Your task to perform on an android device: Do I have any events tomorrow? Image 0: 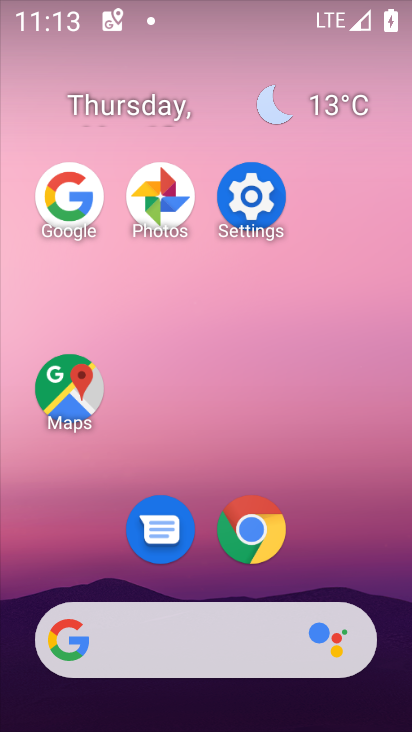
Step 0: drag from (305, 456) to (315, 132)
Your task to perform on an android device: Do I have any events tomorrow? Image 1: 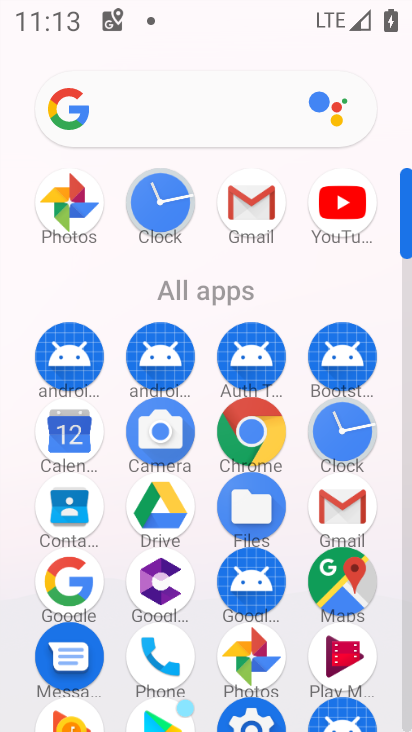
Step 1: drag from (73, 437) to (94, 277)
Your task to perform on an android device: Do I have any events tomorrow? Image 2: 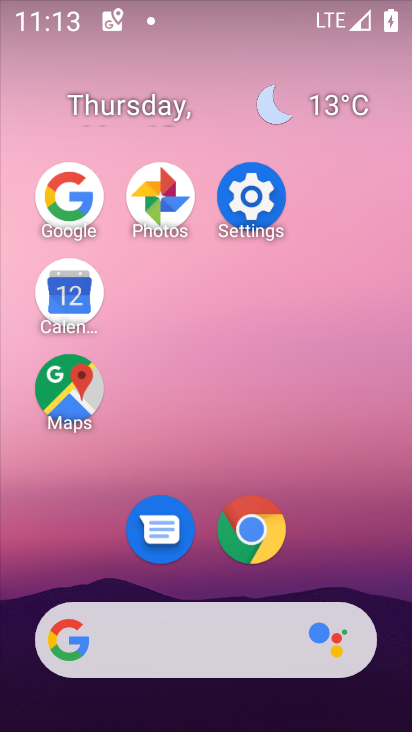
Step 2: click (83, 286)
Your task to perform on an android device: Do I have any events tomorrow? Image 3: 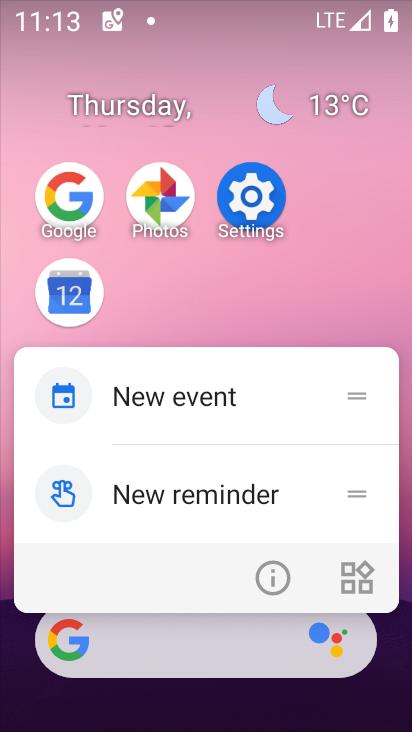
Step 3: click (74, 276)
Your task to perform on an android device: Do I have any events tomorrow? Image 4: 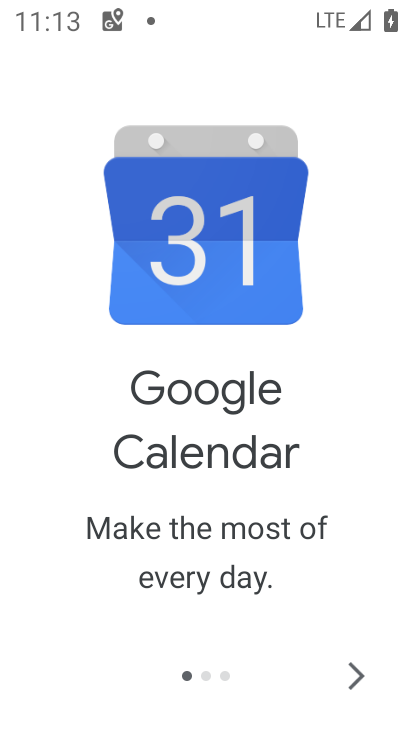
Step 4: click (365, 675)
Your task to perform on an android device: Do I have any events tomorrow? Image 5: 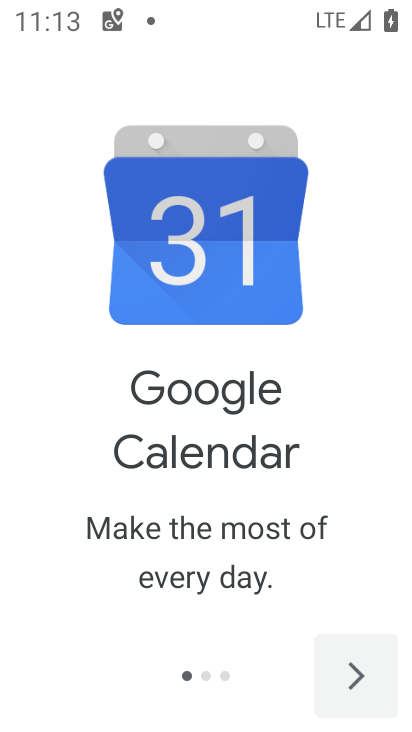
Step 5: click (365, 675)
Your task to perform on an android device: Do I have any events tomorrow? Image 6: 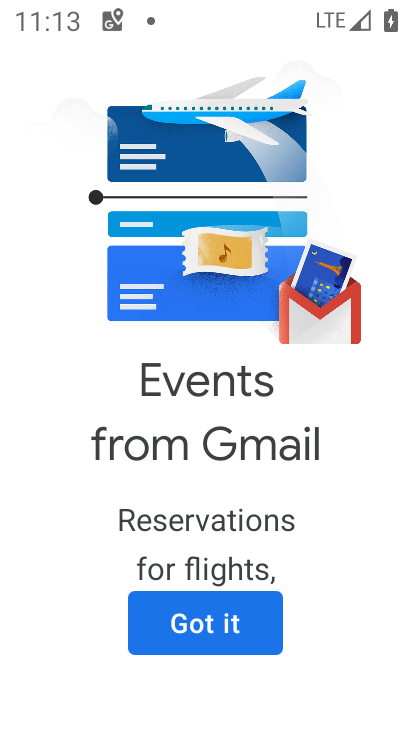
Step 6: click (245, 674)
Your task to perform on an android device: Do I have any events tomorrow? Image 7: 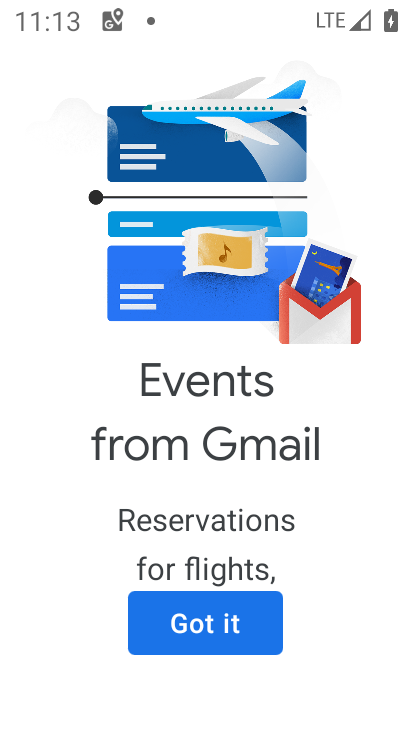
Step 7: click (215, 598)
Your task to perform on an android device: Do I have any events tomorrow? Image 8: 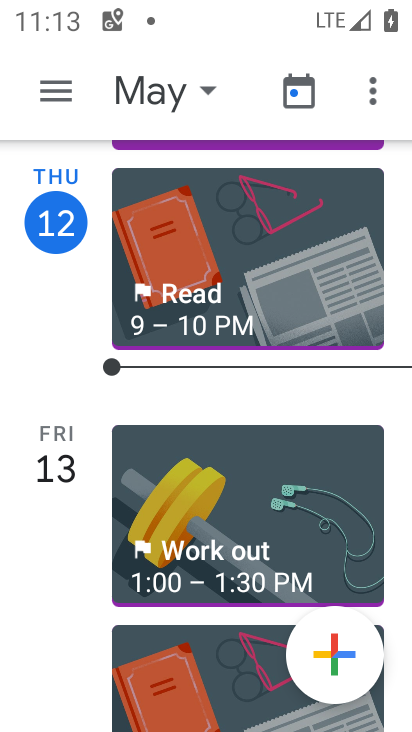
Step 8: drag from (46, 571) to (37, 151)
Your task to perform on an android device: Do I have any events tomorrow? Image 9: 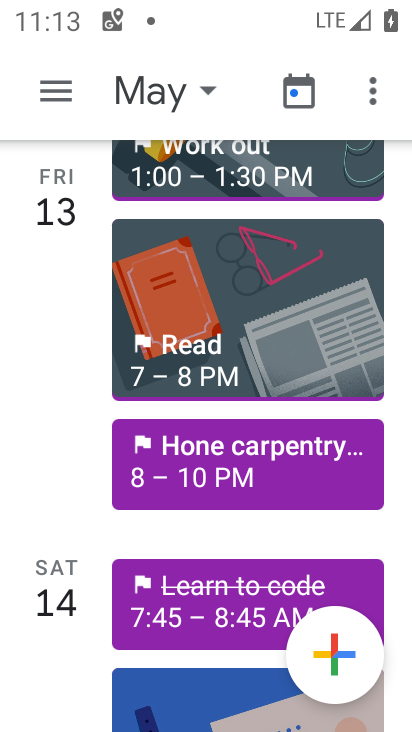
Step 9: click (45, 581)
Your task to perform on an android device: Do I have any events tomorrow? Image 10: 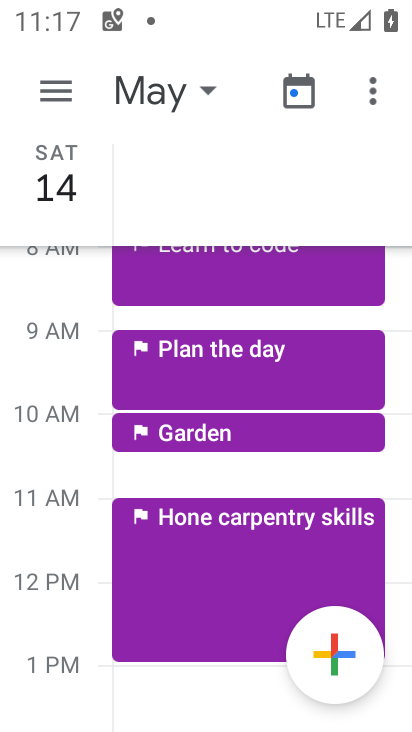
Step 10: task complete